Your task to perform on an android device: Open the Play Movies app and select the watchlist tab. Image 0: 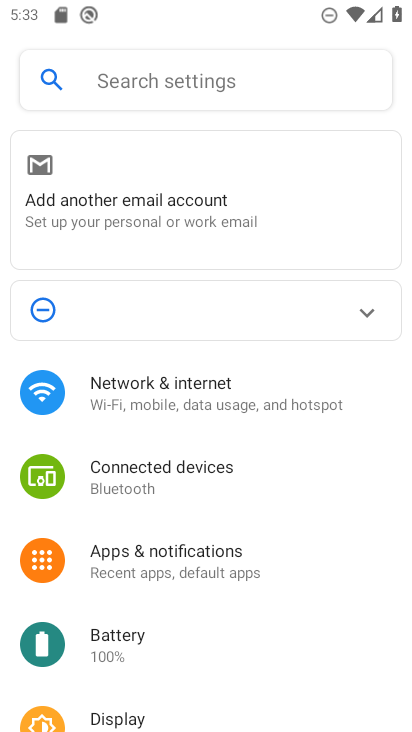
Step 0: press home button
Your task to perform on an android device: Open the Play Movies app and select the watchlist tab. Image 1: 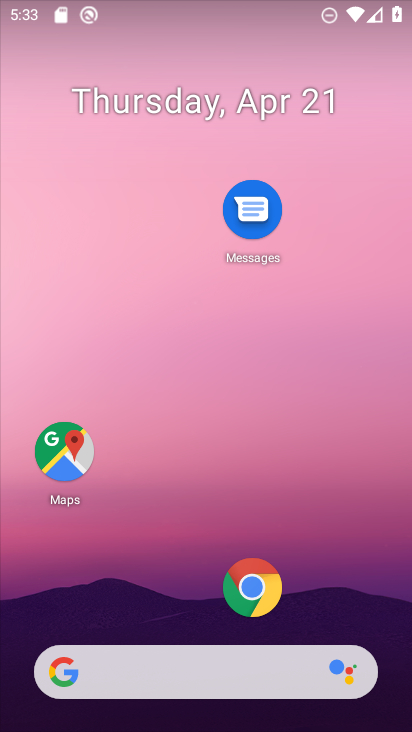
Step 1: drag from (176, 614) to (210, 66)
Your task to perform on an android device: Open the Play Movies app and select the watchlist tab. Image 2: 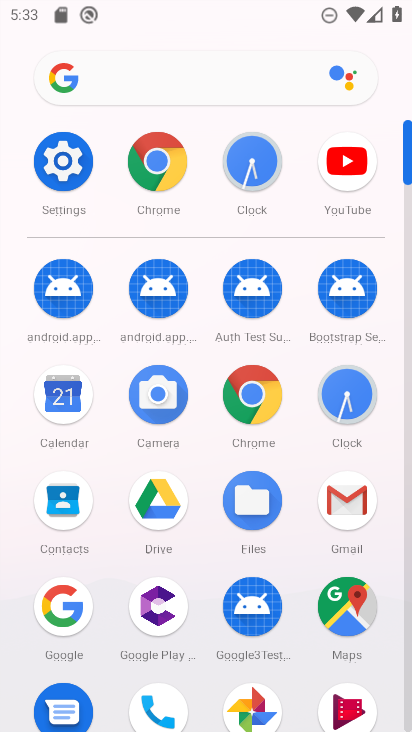
Step 2: click (343, 702)
Your task to perform on an android device: Open the Play Movies app and select the watchlist tab. Image 3: 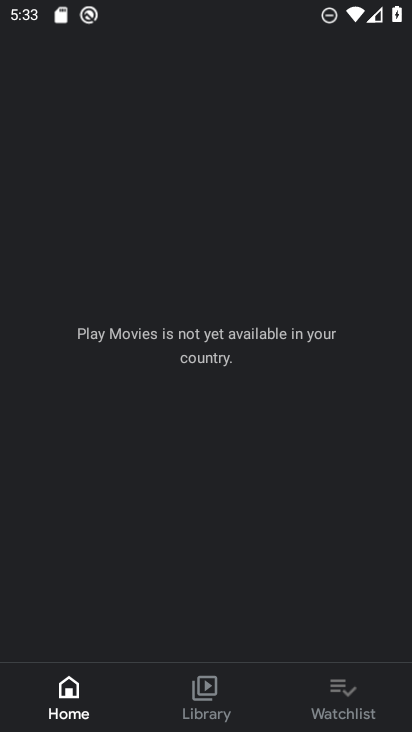
Step 3: click (331, 690)
Your task to perform on an android device: Open the Play Movies app and select the watchlist tab. Image 4: 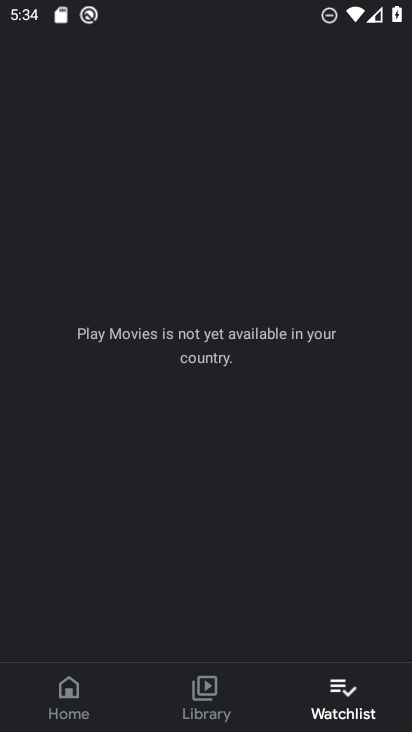
Step 4: task complete